Your task to perform on an android device: Do I have any events today? Image 0: 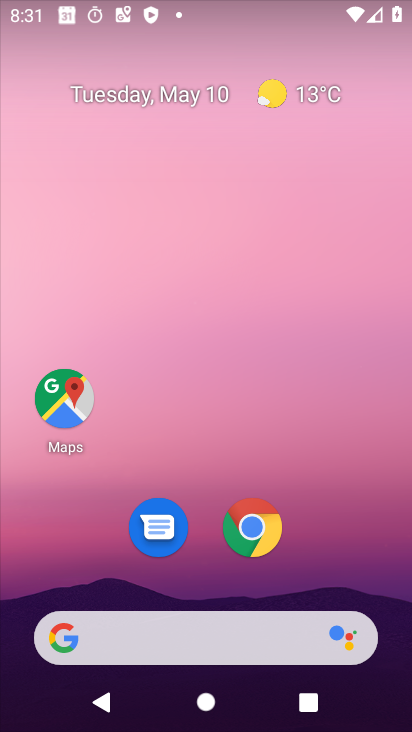
Step 0: drag from (64, 531) to (271, 117)
Your task to perform on an android device: Do I have any events today? Image 1: 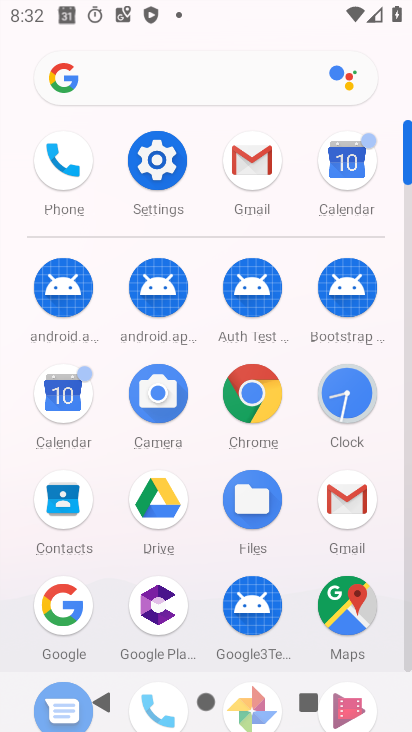
Step 1: click (74, 395)
Your task to perform on an android device: Do I have any events today? Image 2: 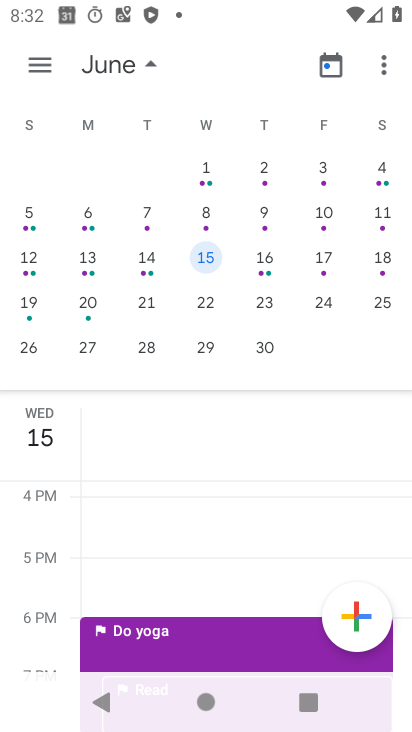
Step 2: drag from (7, 294) to (256, 299)
Your task to perform on an android device: Do I have any events today? Image 3: 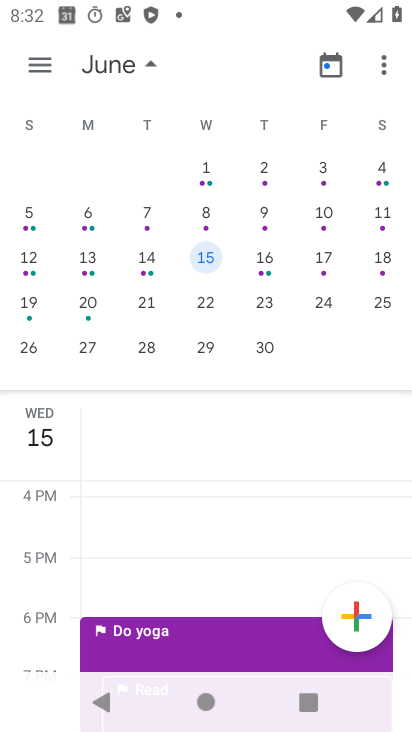
Step 3: drag from (52, 248) to (408, 211)
Your task to perform on an android device: Do I have any events today? Image 4: 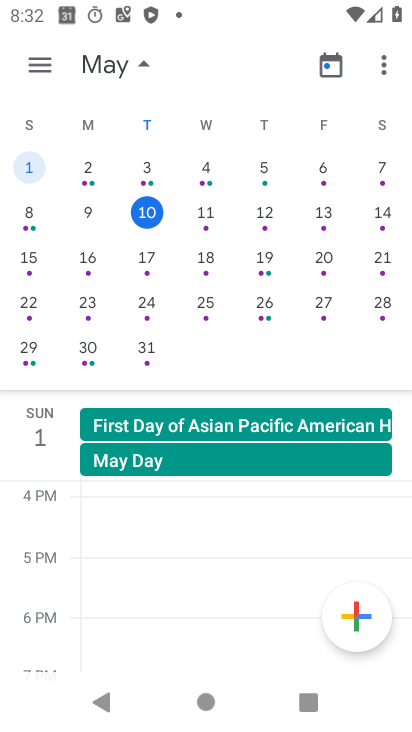
Step 4: click (158, 214)
Your task to perform on an android device: Do I have any events today? Image 5: 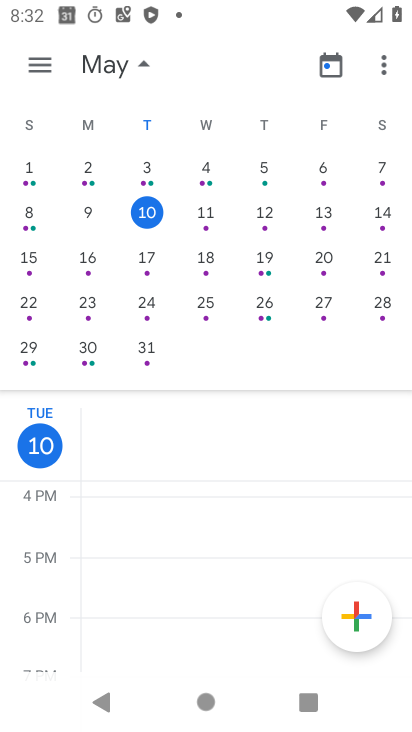
Step 5: task complete